Your task to perform on an android device: Clear the shopping cart on target. Add logitech g pro to the cart on target, then select checkout. Image 0: 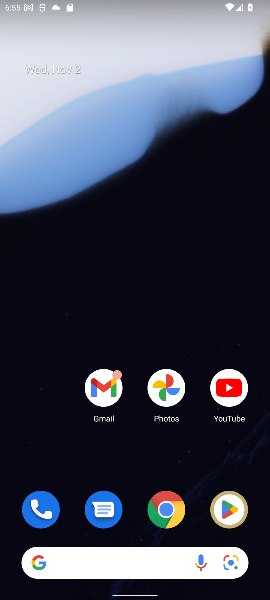
Step 0: click (105, 551)
Your task to perform on an android device: Clear the shopping cart on target. Add logitech g pro to the cart on target, then select checkout. Image 1: 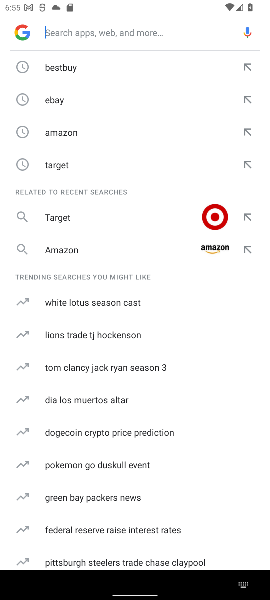
Step 1: click (51, 217)
Your task to perform on an android device: Clear the shopping cart on target. Add logitech g pro to the cart on target, then select checkout. Image 2: 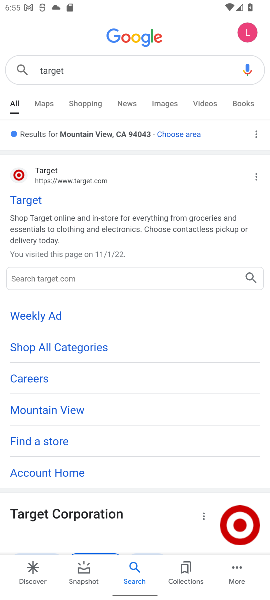
Step 2: click (33, 200)
Your task to perform on an android device: Clear the shopping cart on target. Add logitech g pro to the cart on target, then select checkout. Image 3: 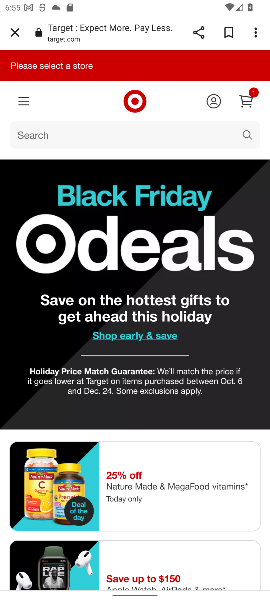
Step 3: click (98, 137)
Your task to perform on an android device: Clear the shopping cart on target. Add logitech g pro to the cart on target, then select checkout. Image 4: 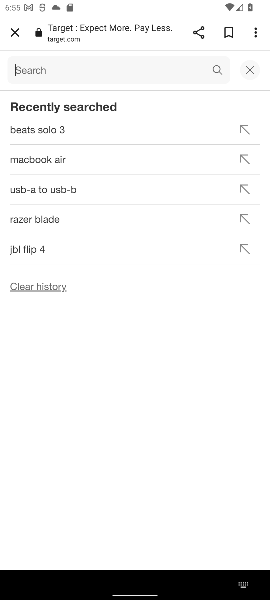
Step 4: click (251, 68)
Your task to perform on an android device: Clear the shopping cart on target. Add logitech g pro to the cart on target, then select checkout. Image 5: 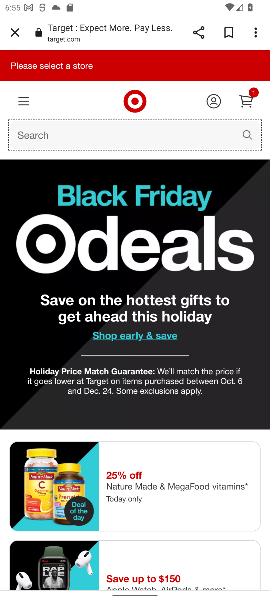
Step 5: click (249, 101)
Your task to perform on an android device: Clear the shopping cart on target. Add logitech g pro to the cart on target, then select checkout. Image 6: 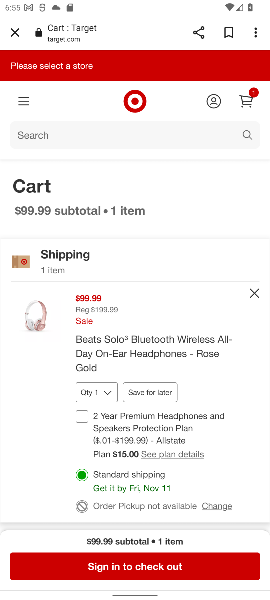
Step 6: click (254, 291)
Your task to perform on an android device: Clear the shopping cart on target. Add logitech g pro to the cart on target, then select checkout. Image 7: 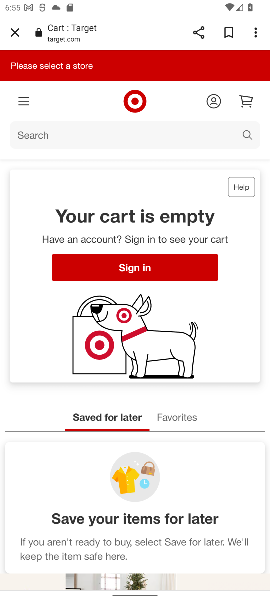
Step 7: click (33, 133)
Your task to perform on an android device: Clear the shopping cart on target. Add logitech g pro to the cart on target, then select checkout. Image 8: 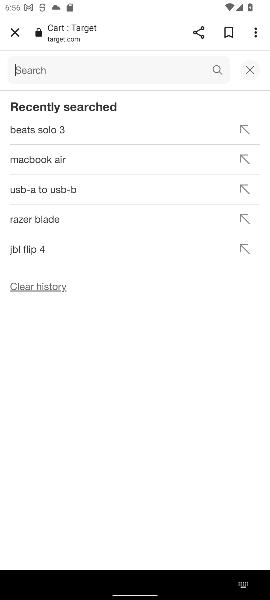
Step 8: type "logitech g pro"
Your task to perform on an android device: Clear the shopping cart on target. Add logitech g pro to the cart on target, then select checkout. Image 9: 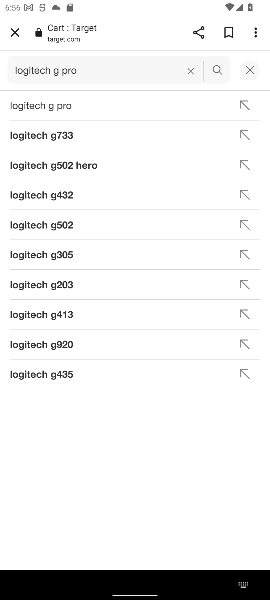
Step 9: click (58, 100)
Your task to perform on an android device: Clear the shopping cart on target. Add logitech g pro to the cart on target, then select checkout. Image 10: 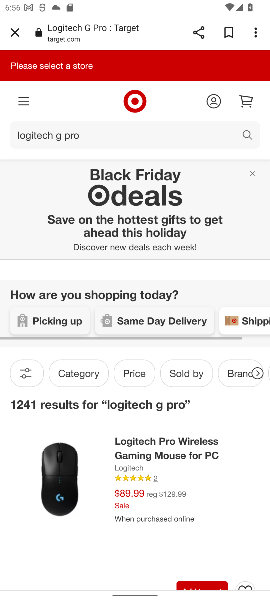
Step 10: drag from (231, 460) to (238, 315)
Your task to perform on an android device: Clear the shopping cart on target. Add logitech g pro to the cart on target, then select checkout. Image 11: 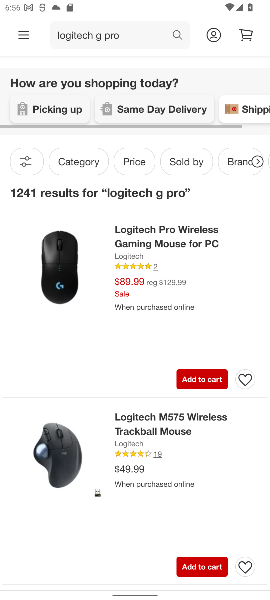
Step 11: click (195, 381)
Your task to perform on an android device: Clear the shopping cart on target. Add logitech g pro to the cart on target, then select checkout. Image 12: 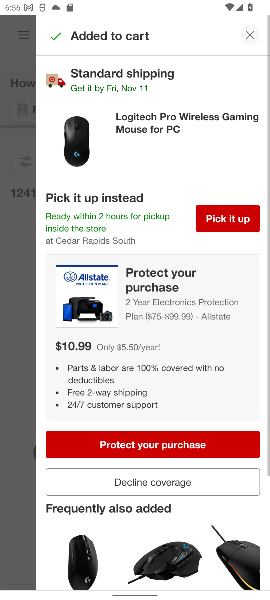
Step 12: click (248, 33)
Your task to perform on an android device: Clear the shopping cart on target. Add logitech g pro to the cart on target, then select checkout. Image 13: 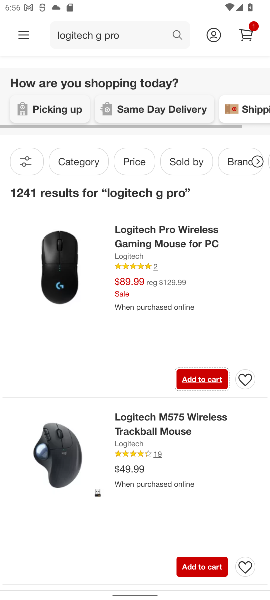
Step 13: click (247, 30)
Your task to perform on an android device: Clear the shopping cart on target. Add logitech g pro to the cart on target, then select checkout. Image 14: 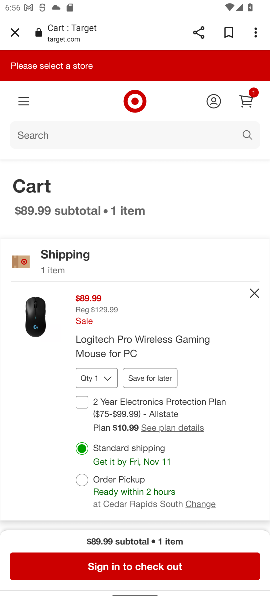
Step 14: click (148, 570)
Your task to perform on an android device: Clear the shopping cart on target. Add logitech g pro to the cart on target, then select checkout. Image 15: 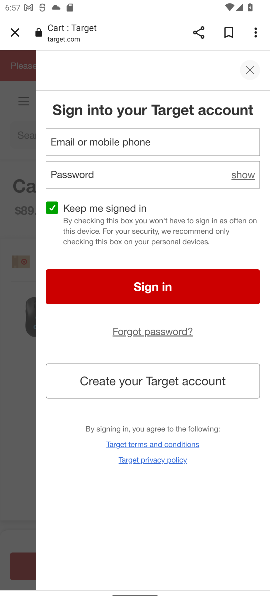
Step 15: task complete